Your task to perform on an android device: clear all cookies in the chrome app Image 0: 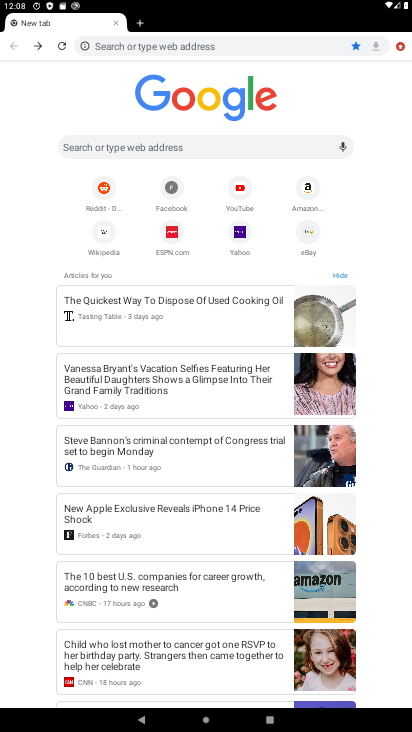
Step 0: press back button
Your task to perform on an android device: clear all cookies in the chrome app Image 1: 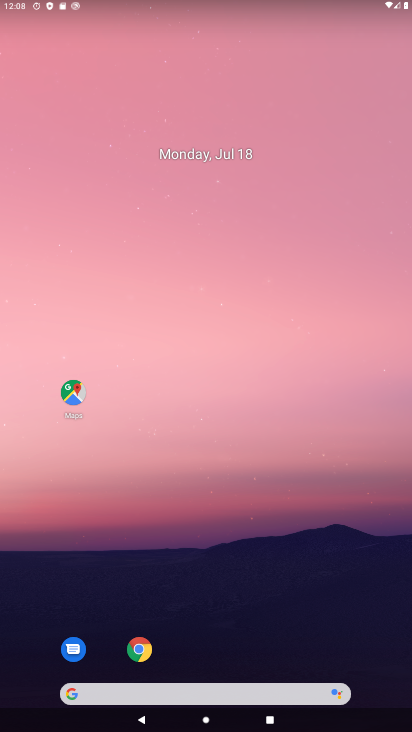
Step 1: drag from (281, 678) to (271, 259)
Your task to perform on an android device: clear all cookies in the chrome app Image 2: 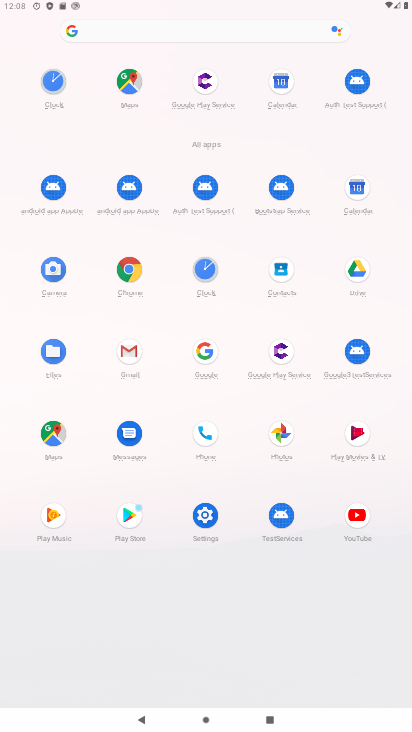
Step 2: click (130, 261)
Your task to perform on an android device: clear all cookies in the chrome app Image 3: 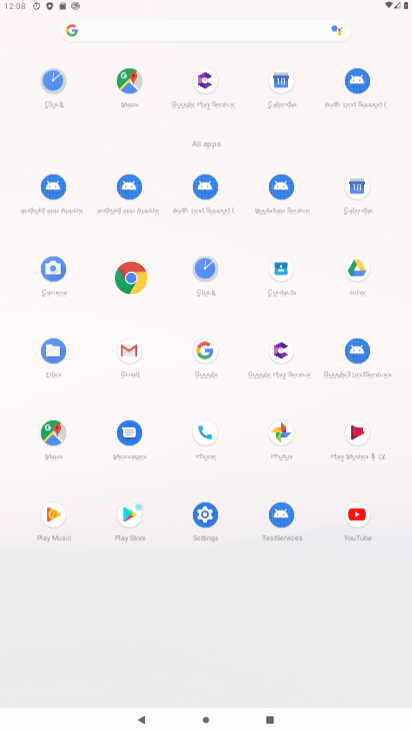
Step 3: click (135, 270)
Your task to perform on an android device: clear all cookies in the chrome app Image 4: 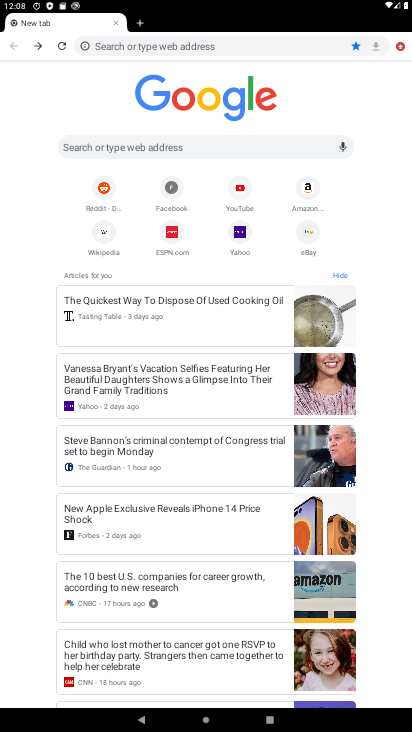
Step 4: click (389, 49)
Your task to perform on an android device: clear all cookies in the chrome app Image 5: 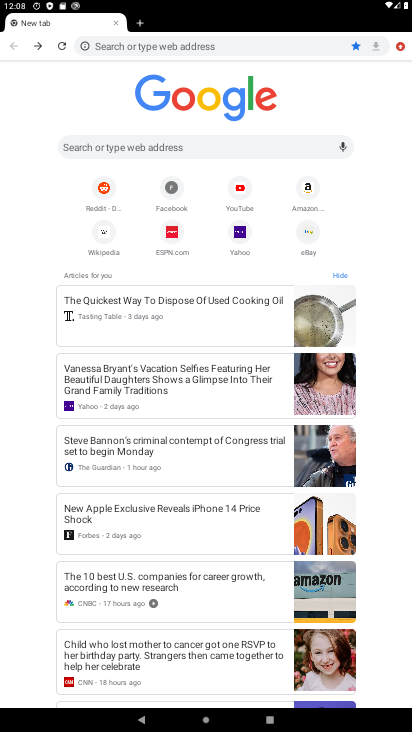
Step 5: click (397, 44)
Your task to perform on an android device: clear all cookies in the chrome app Image 6: 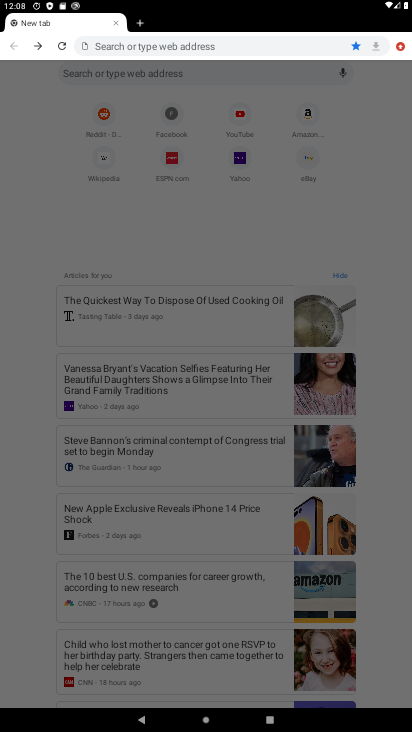
Step 6: click (399, 43)
Your task to perform on an android device: clear all cookies in the chrome app Image 7: 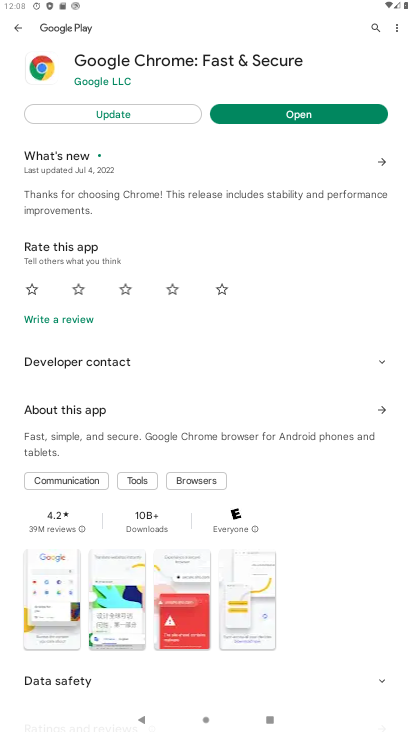
Step 7: click (17, 28)
Your task to perform on an android device: clear all cookies in the chrome app Image 8: 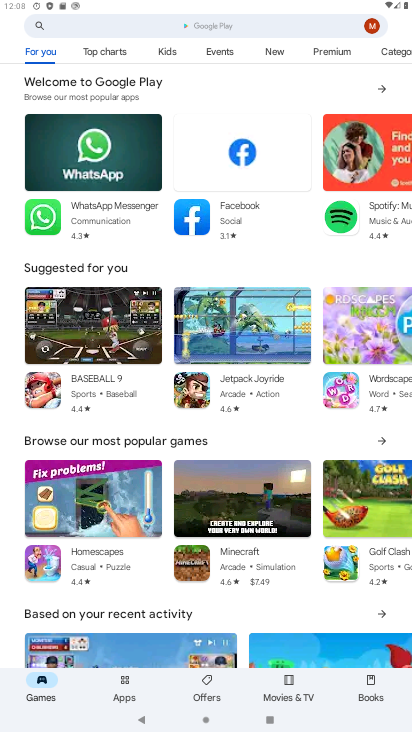
Step 8: press back button
Your task to perform on an android device: clear all cookies in the chrome app Image 9: 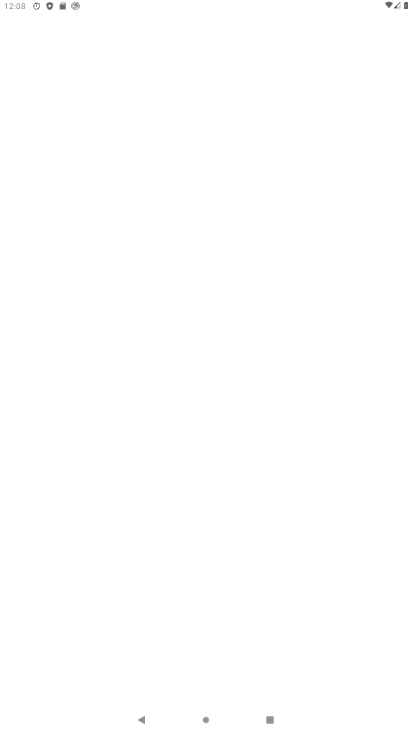
Step 9: press back button
Your task to perform on an android device: clear all cookies in the chrome app Image 10: 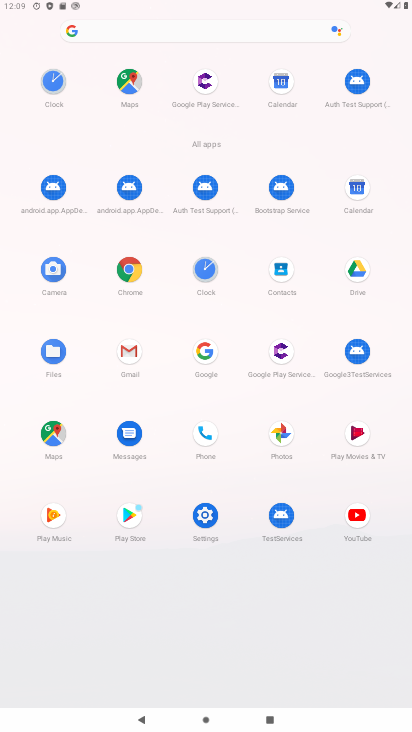
Step 10: click (131, 268)
Your task to perform on an android device: clear all cookies in the chrome app Image 11: 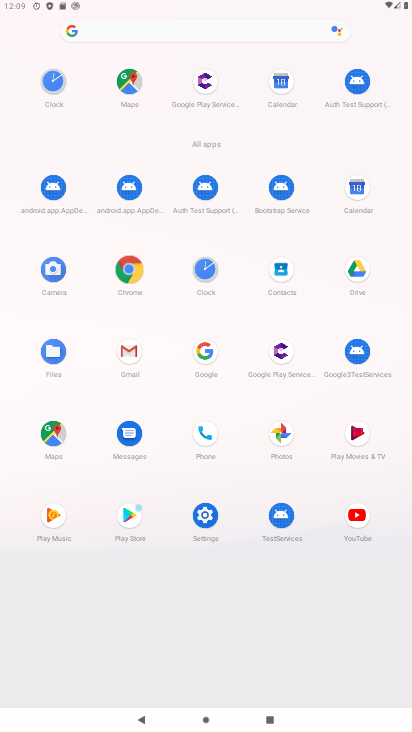
Step 11: click (131, 268)
Your task to perform on an android device: clear all cookies in the chrome app Image 12: 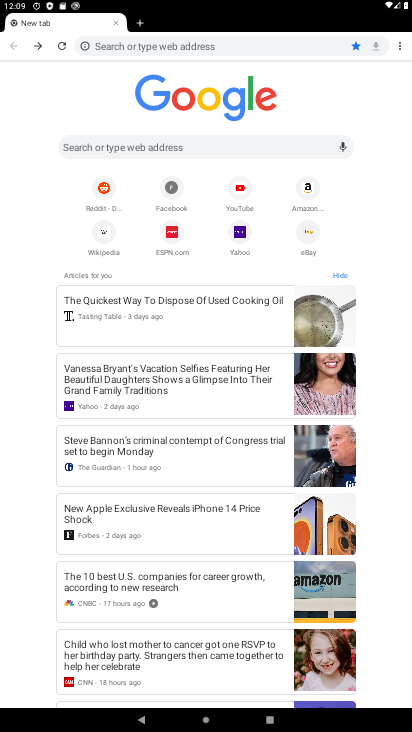
Step 12: drag from (400, 45) to (308, 231)
Your task to perform on an android device: clear all cookies in the chrome app Image 13: 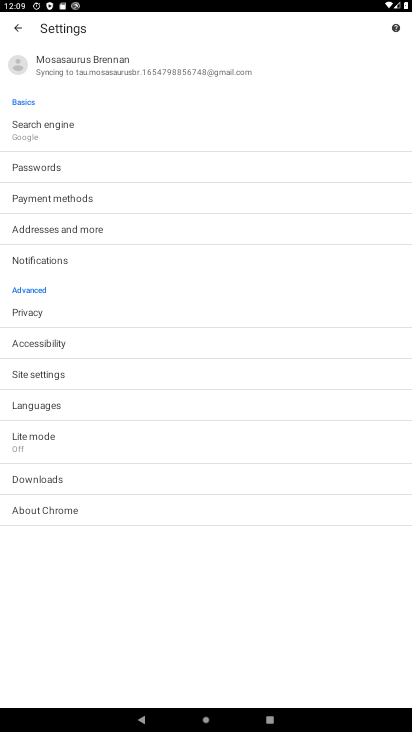
Step 13: click (31, 137)
Your task to perform on an android device: clear all cookies in the chrome app Image 14: 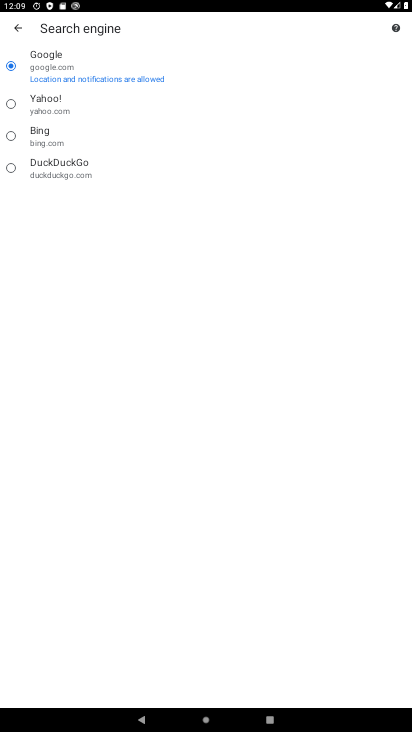
Step 14: click (15, 24)
Your task to perform on an android device: clear all cookies in the chrome app Image 15: 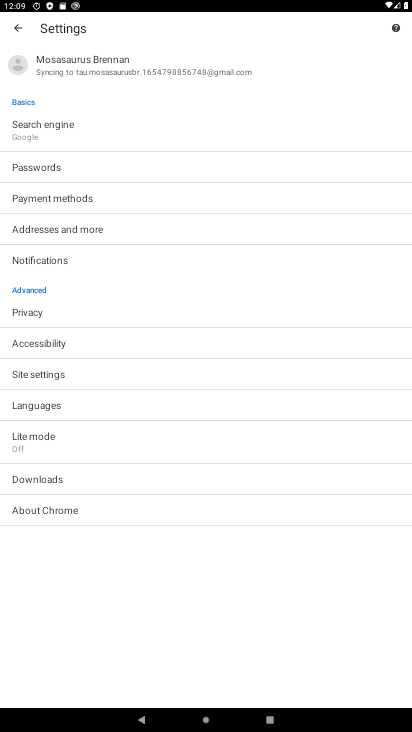
Step 15: click (36, 369)
Your task to perform on an android device: clear all cookies in the chrome app Image 16: 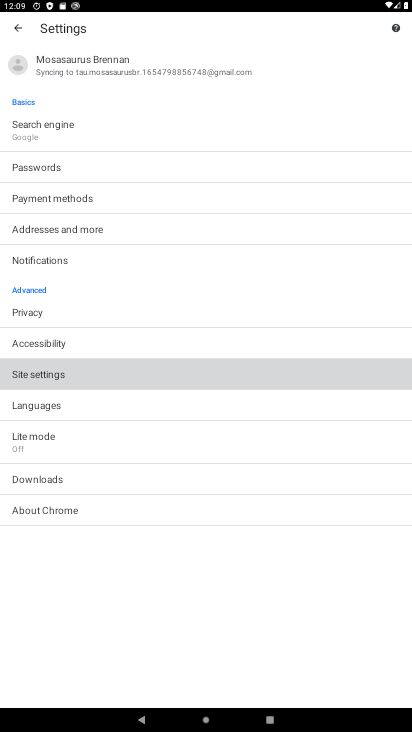
Step 16: click (36, 368)
Your task to perform on an android device: clear all cookies in the chrome app Image 17: 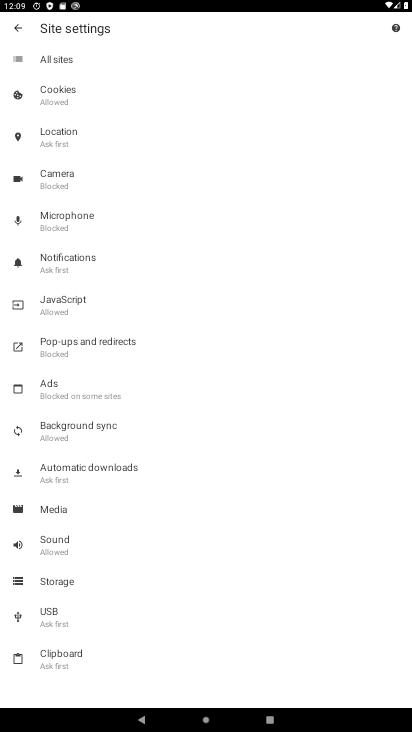
Step 17: click (59, 86)
Your task to perform on an android device: clear all cookies in the chrome app Image 18: 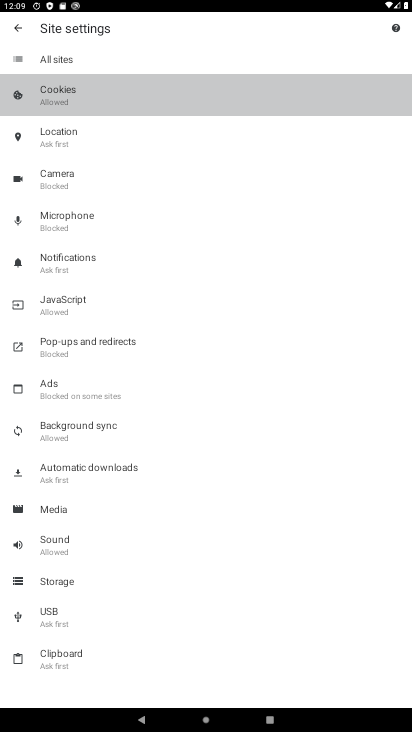
Step 18: click (59, 84)
Your task to perform on an android device: clear all cookies in the chrome app Image 19: 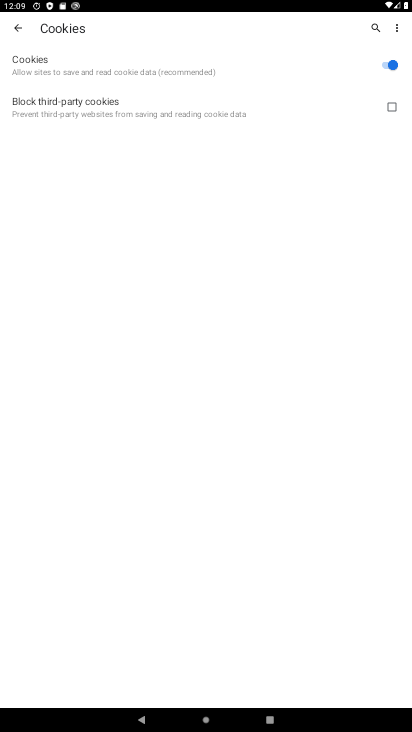
Step 19: click (395, 60)
Your task to perform on an android device: clear all cookies in the chrome app Image 20: 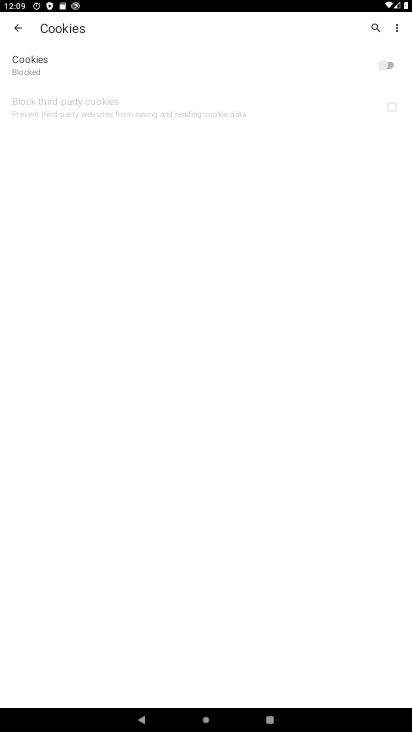
Step 20: task complete